Your task to perform on an android device: Check out the best rated electric trimmers on Lowe's Image 0: 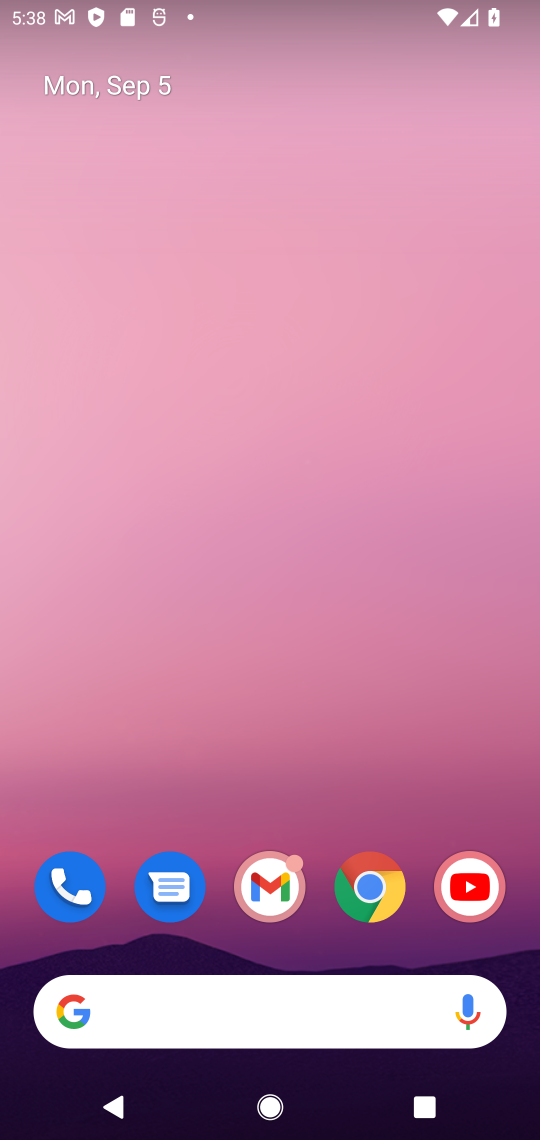
Step 0: drag from (321, 308) to (366, 7)
Your task to perform on an android device: Check out the best rated electric trimmers on Lowe's Image 1: 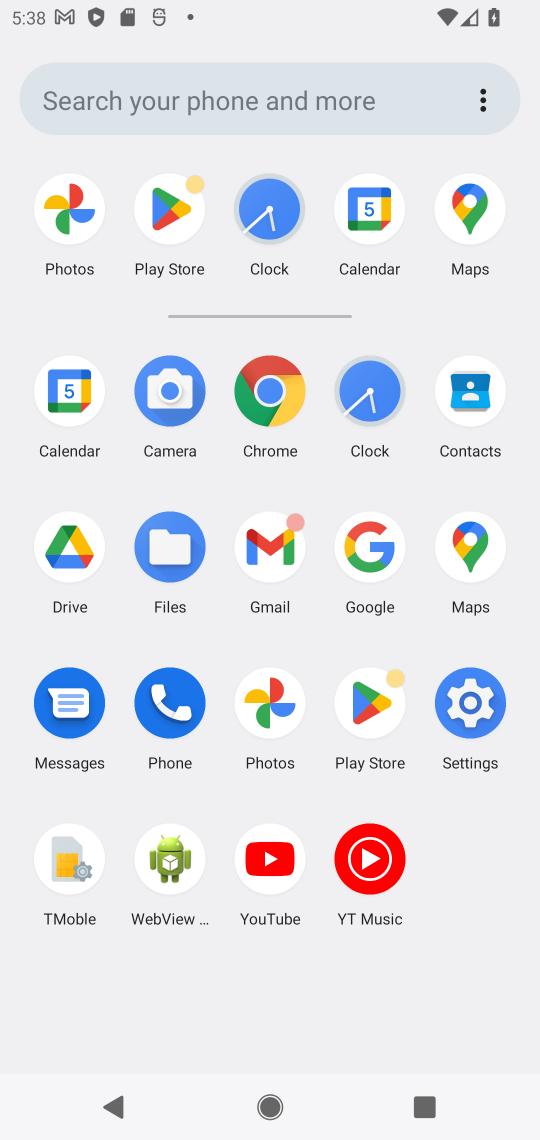
Step 1: click (268, 389)
Your task to perform on an android device: Check out the best rated electric trimmers on Lowe's Image 2: 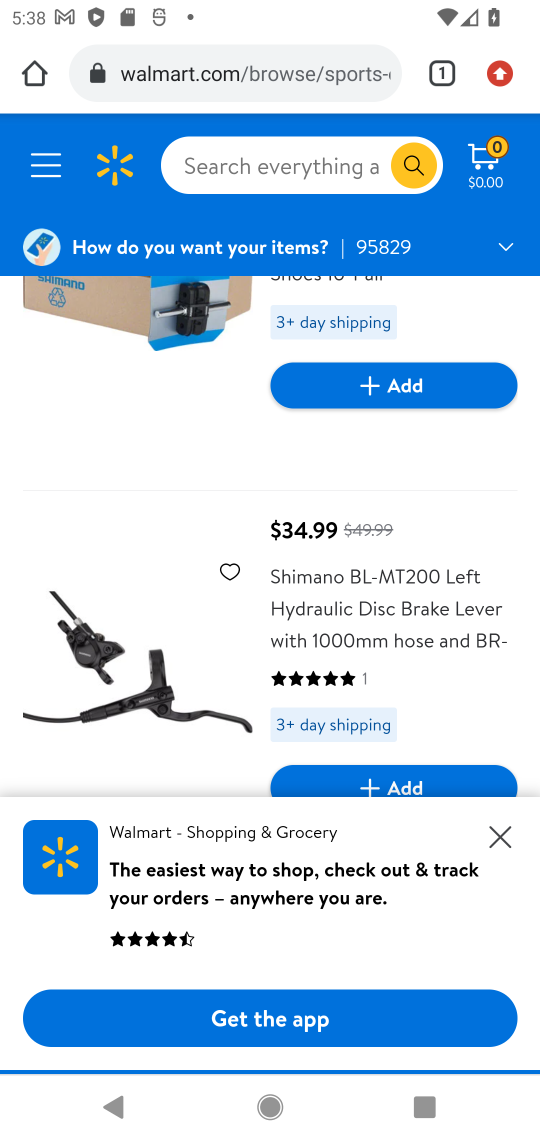
Step 2: click (337, 70)
Your task to perform on an android device: Check out the best rated electric trimmers on Lowe's Image 3: 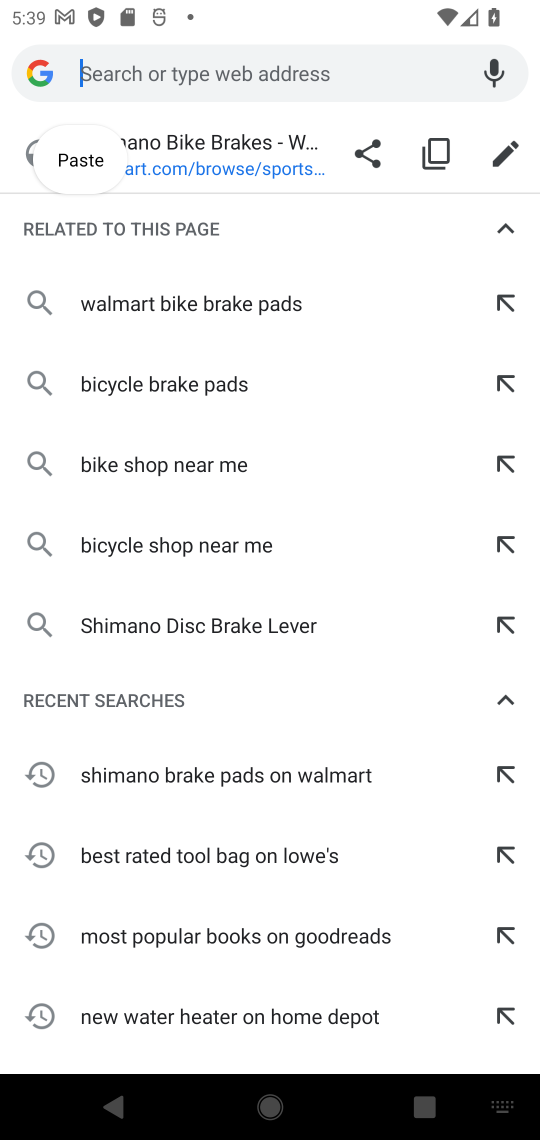
Step 3: type "best rated electric trimmers on Lowe's"
Your task to perform on an android device: Check out the best rated electric trimmers on Lowe's Image 4: 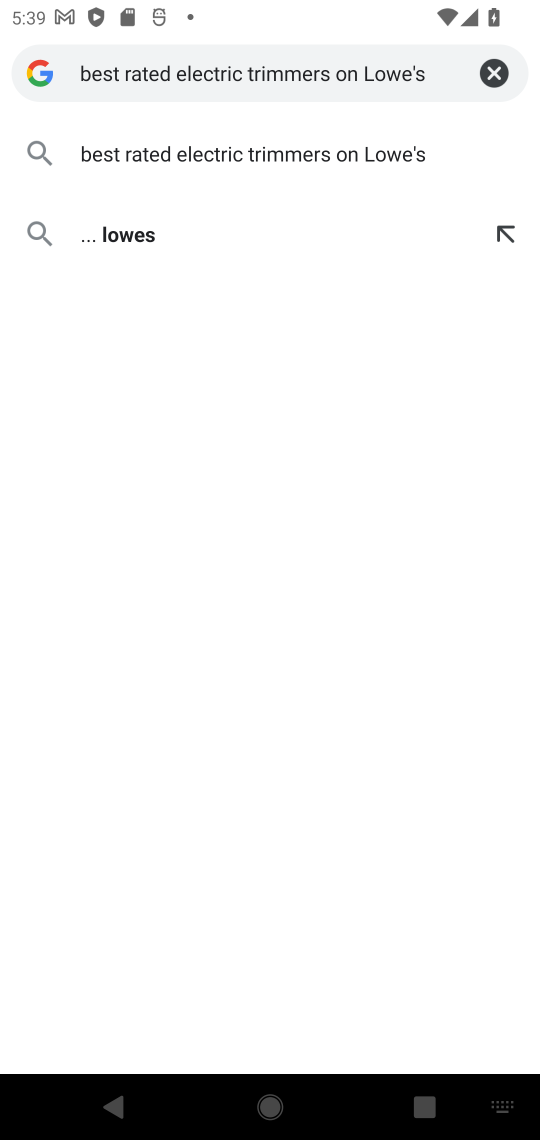
Step 4: press enter
Your task to perform on an android device: Check out the best rated electric trimmers on Lowe's Image 5: 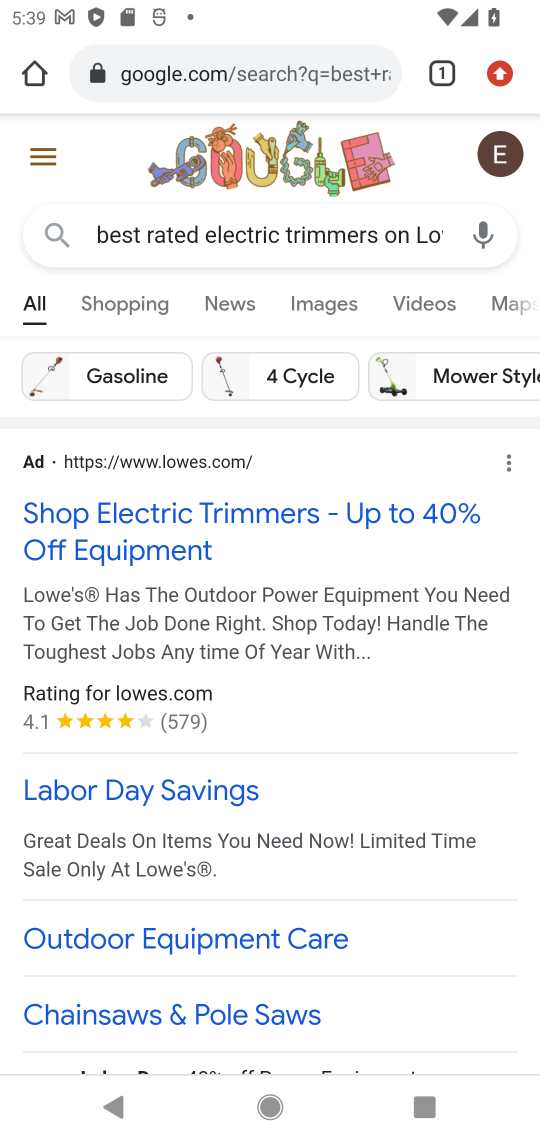
Step 5: drag from (346, 653) to (402, 134)
Your task to perform on an android device: Check out the best rated electric trimmers on Lowe's Image 6: 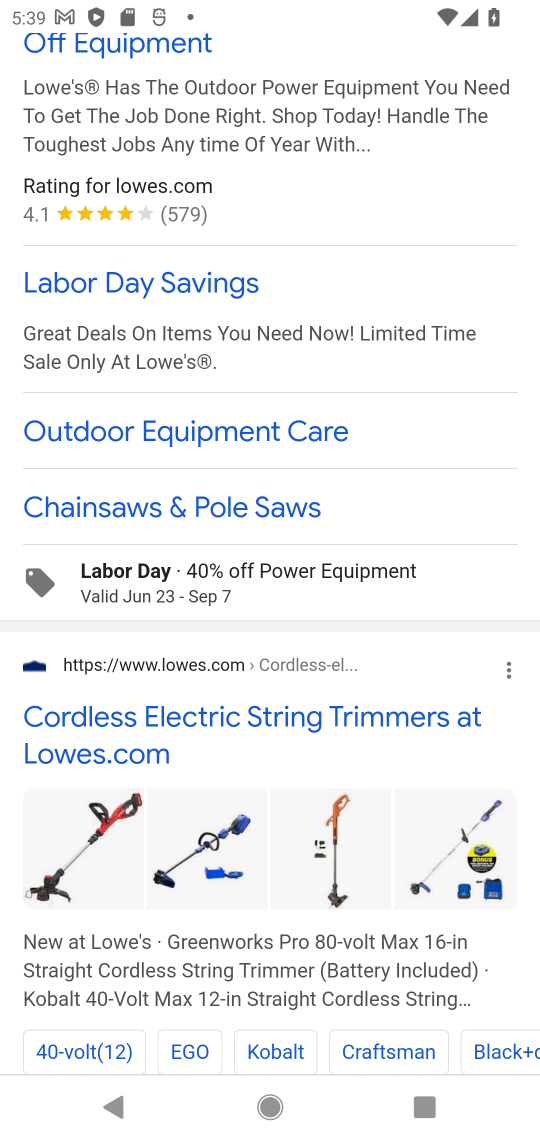
Step 6: click (253, 716)
Your task to perform on an android device: Check out the best rated electric trimmers on Lowe's Image 7: 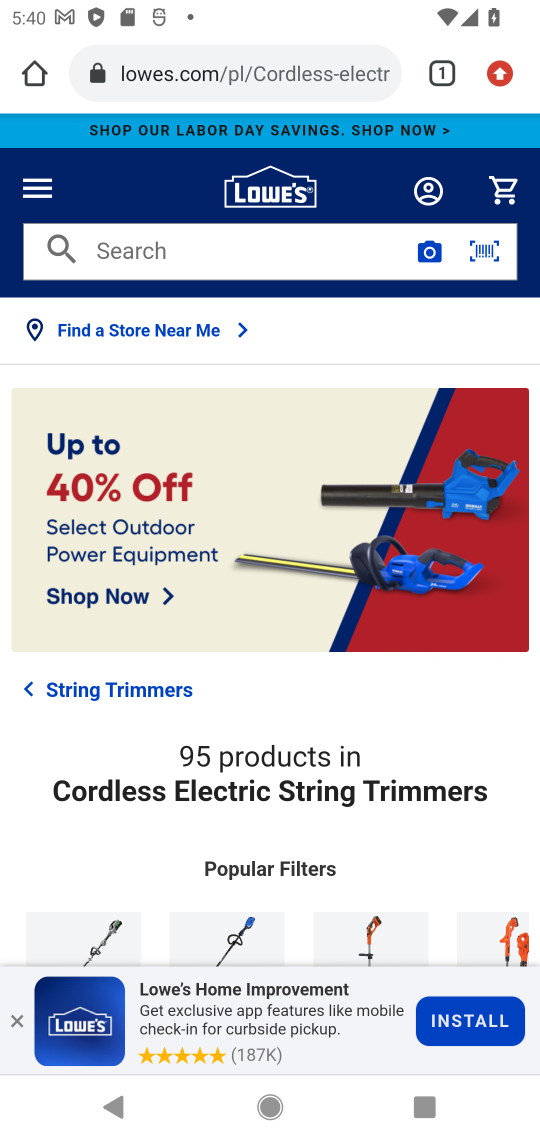
Step 7: task complete